Your task to perform on an android device: Open Google Chrome and open the bookmarks view Image 0: 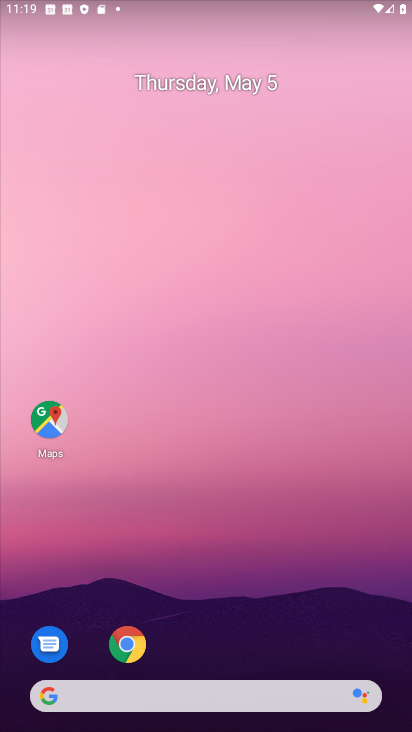
Step 0: drag from (175, 656) to (248, 76)
Your task to perform on an android device: Open Google Chrome and open the bookmarks view Image 1: 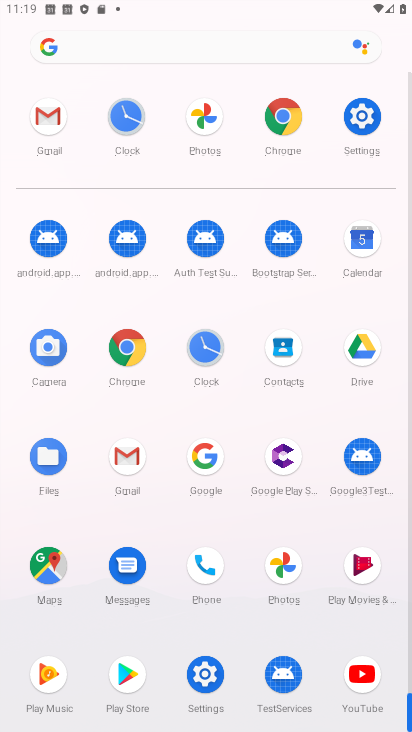
Step 1: click (273, 110)
Your task to perform on an android device: Open Google Chrome and open the bookmarks view Image 2: 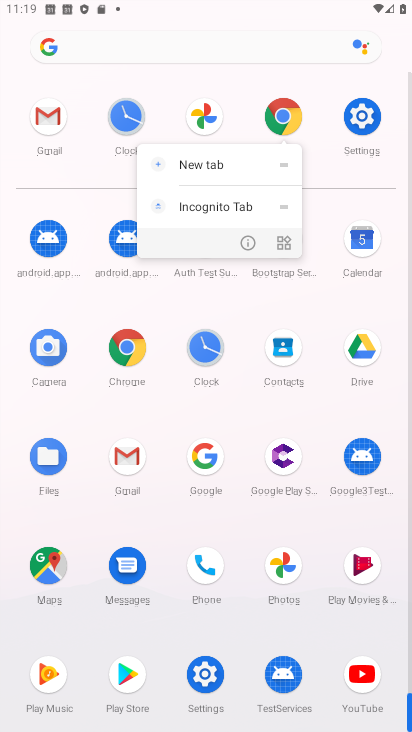
Step 2: click (253, 239)
Your task to perform on an android device: Open Google Chrome and open the bookmarks view Image 3: 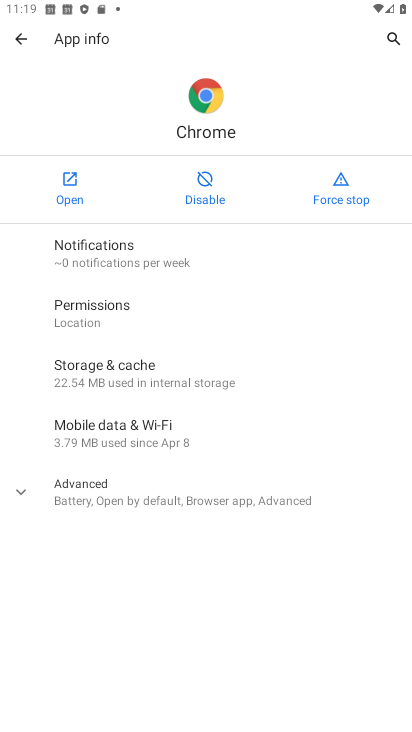
Step 3: click (77, 181)
Your task to perform on an android device: Open Google Chrome and open the bookmarks view Image 4: 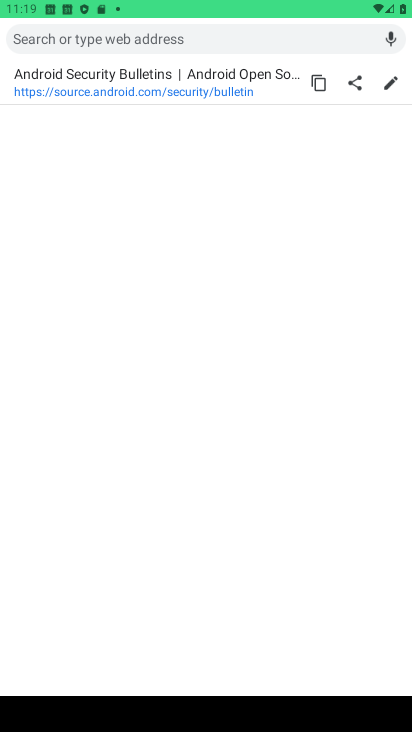
Step 4: drag from (216, 448) to (209, 284)
Your task to perform on an android device: Open Google Chrome and open the bookmarks view Image 5: 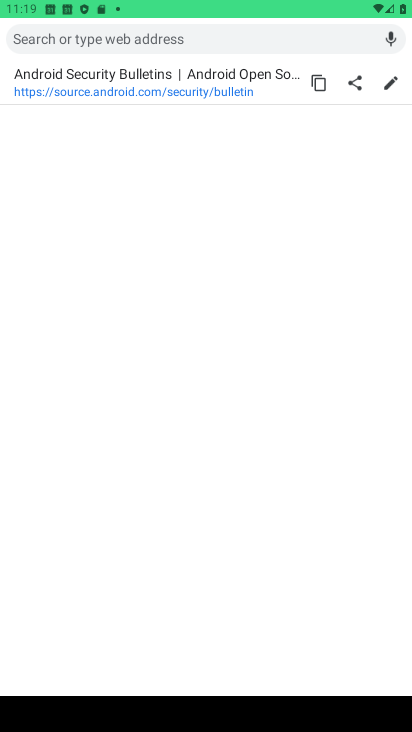
Step 5: click (116, 235)
Your task to perform on an android device: Open Google Chrome and open the bookmarks view Image 6: 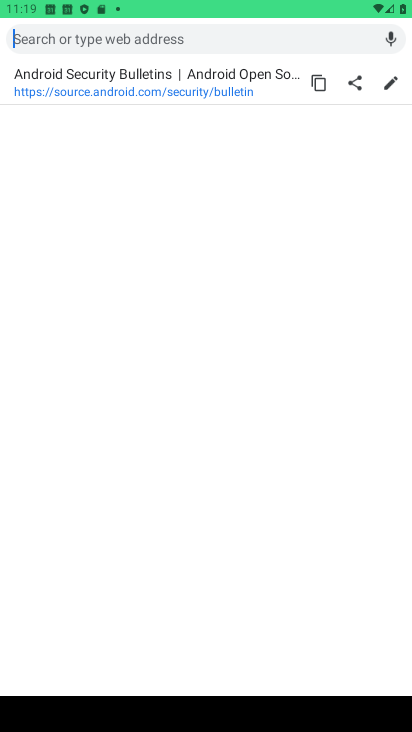
Step 6: click (119, 220)
Your task to perform on an android device: Open Google Chrome and open the bookmarks view Image 7: 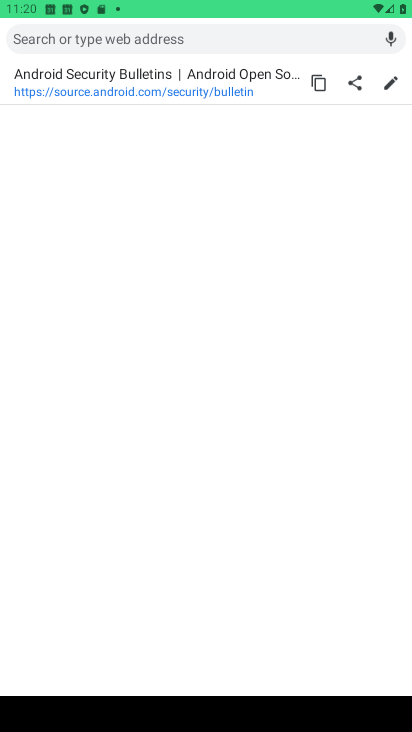
Step 7: click (187, 238)
Your task to perform on an android device: Open Google Chrome and open the bookmarks view Image 8: 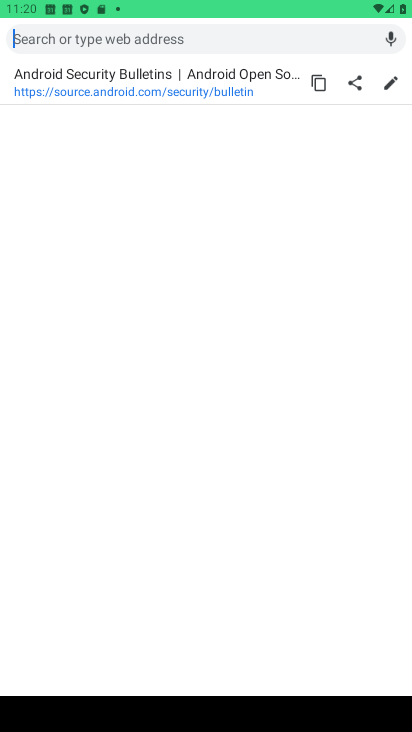
Step 8: task complete